Your task to perform on an android device: Open Google Image 0: 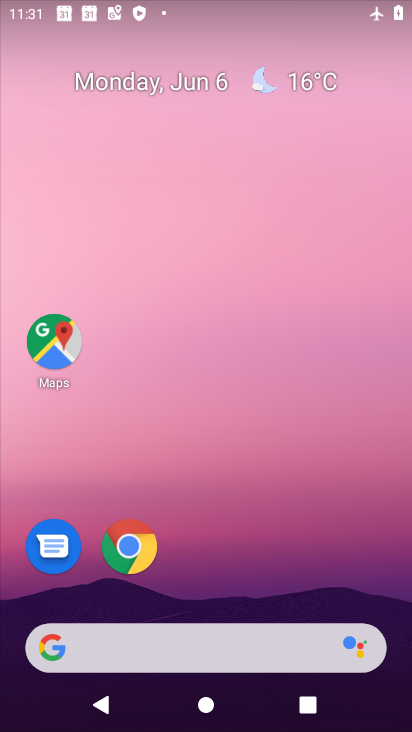
Step 0: drag from (222, 497) to (229, 132)
Your task to perform on an android device: Open Google Image 1: 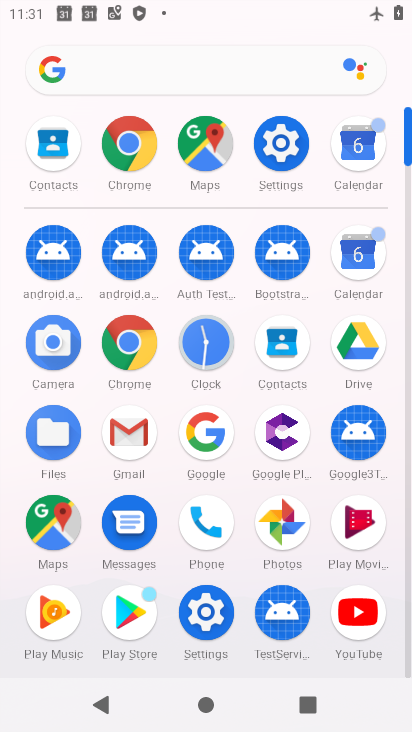
Step 1: click (204, 438)
Your task to perform on an android device: Open Google Image 2: 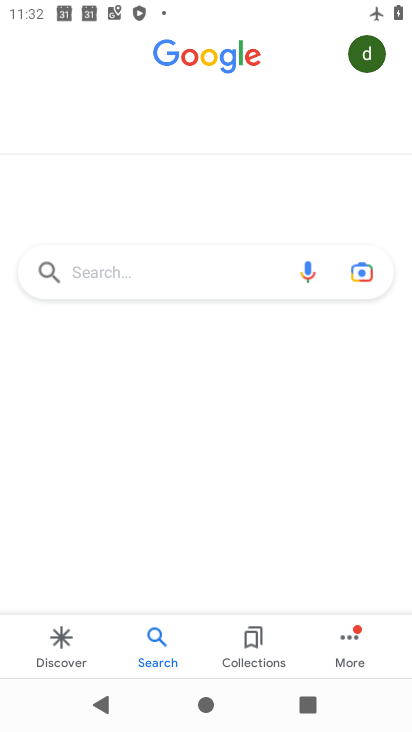
Step 2: task complete